Your task to perform on an android device: open a new tab in the chrome app Image 0: 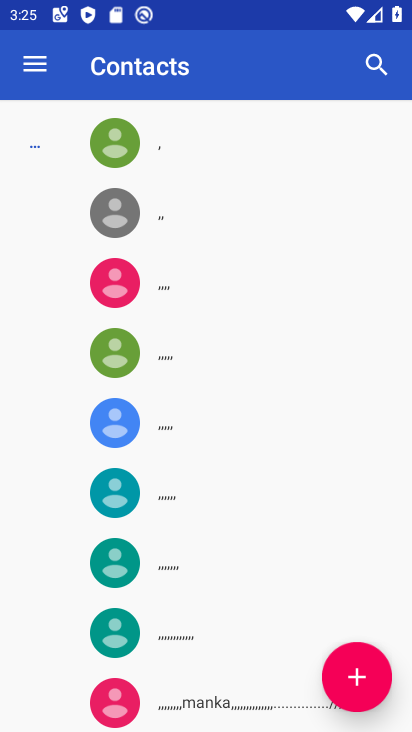
Step 0: press home button
Your task to perform on an android device: open a new tab in the chrome app Image 1: 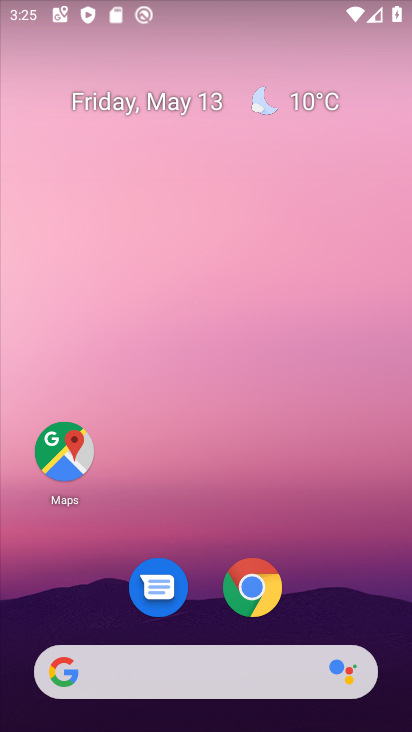
Step 1: click (240, 591)
Your task to perform on an android device: open a new tab in the chrome app Image 2: 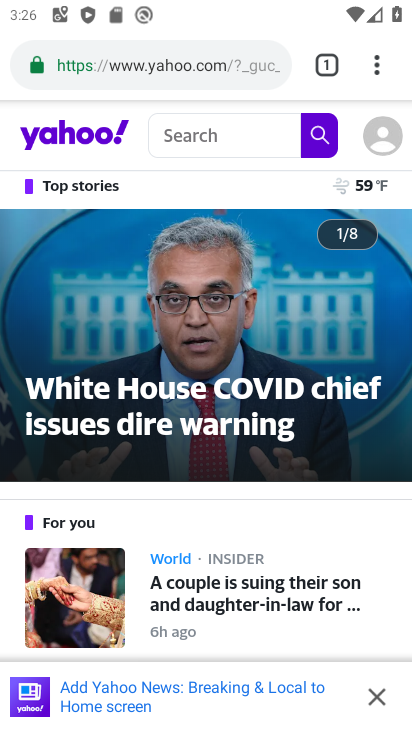
Step 2: click (381, 65)
Your task to perform on an android device: open a new tab in the chrome app Image 3: 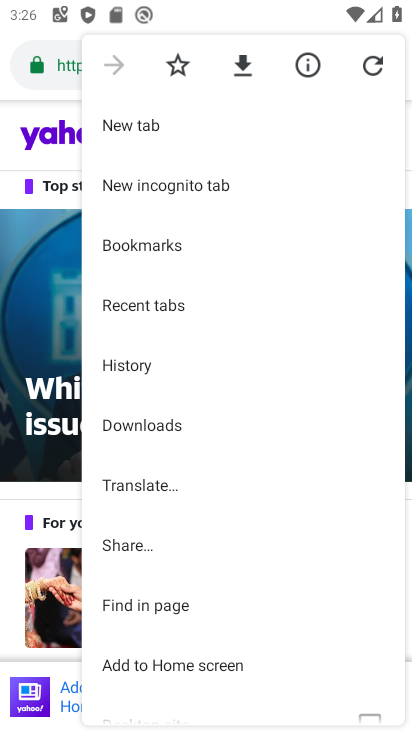
Step 3: click (177, 132)
Your task to perform on an android device: open a new tab in the chrome app Image 4: 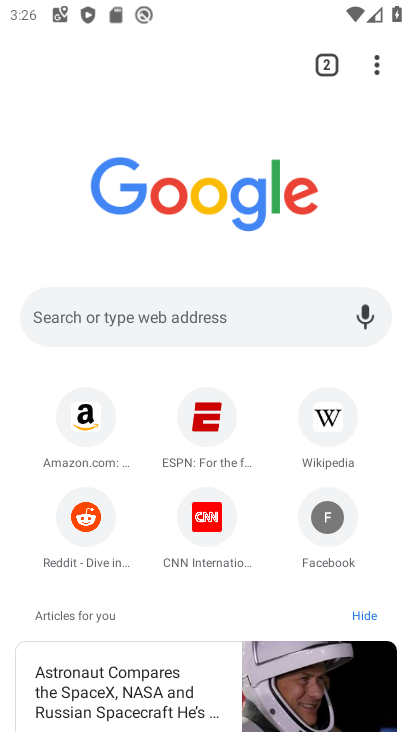
Step 4: task complete